Your task to perform on an android device: set default search engine in the chrome app Image 0: 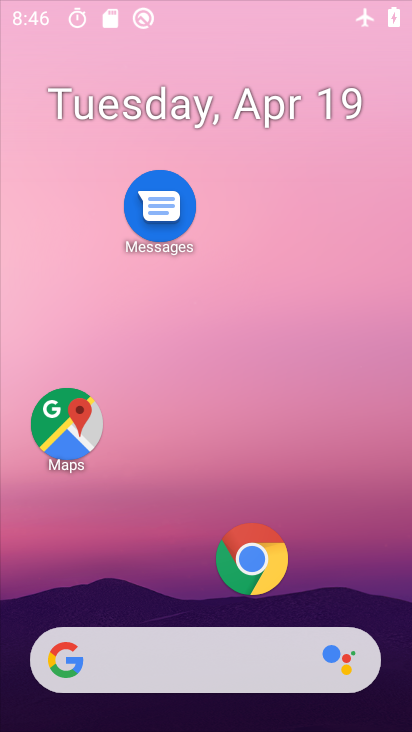
Step 0: click (392, 653)
Your task to perform on an android device: set default search engine in the chrome app Image 1: 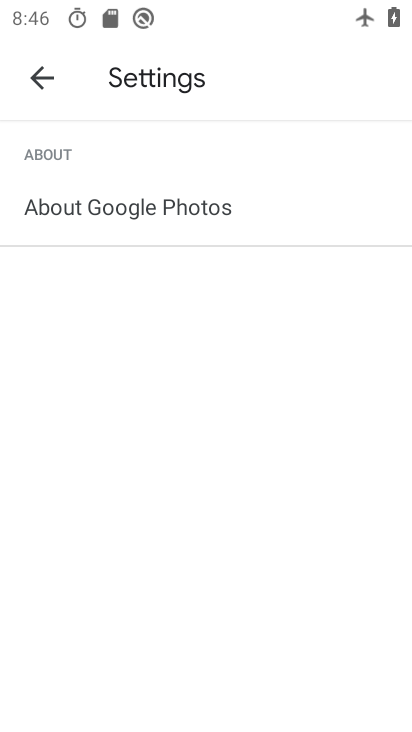
Step 1: press home button
Your task to perform on an android device: set default search engine in the chrome app Image 2: 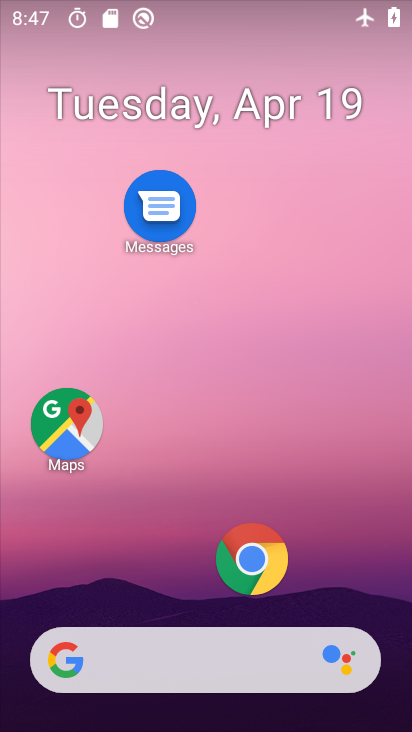
Step 2: click (247, 556)
Your task to perform on an android device: set default search engine in the chrome app Image 3: 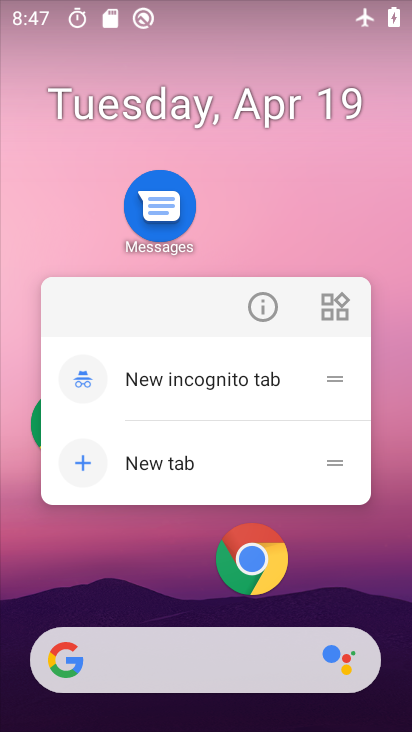
Step 3: click (254, 553)
Your task to perform on an android device: set default search engine in the chrome app Image 4: 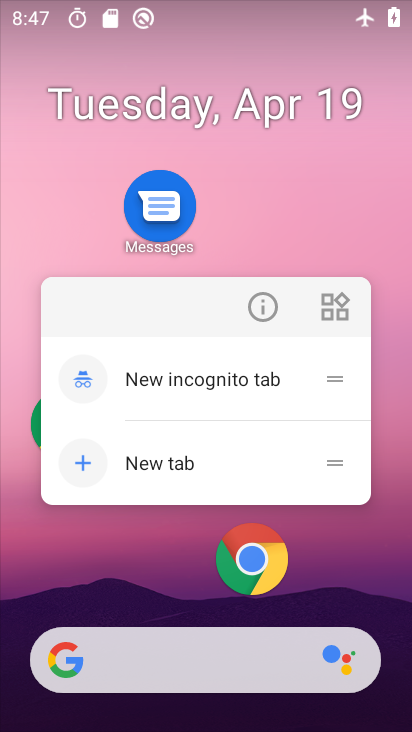
Step 4: click (254, 553)
Your task to perform on an android device: set default search engine in the chrome app Image 5: 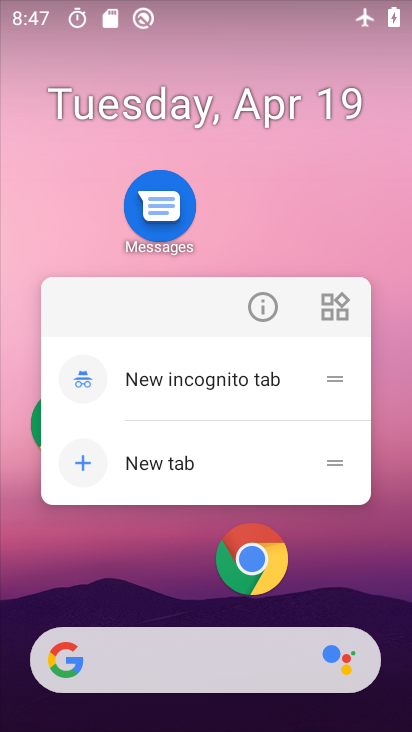
Step 5: click (254, 553)
Your task to perform on an android device: set default search engine in the chrome app Image 6: 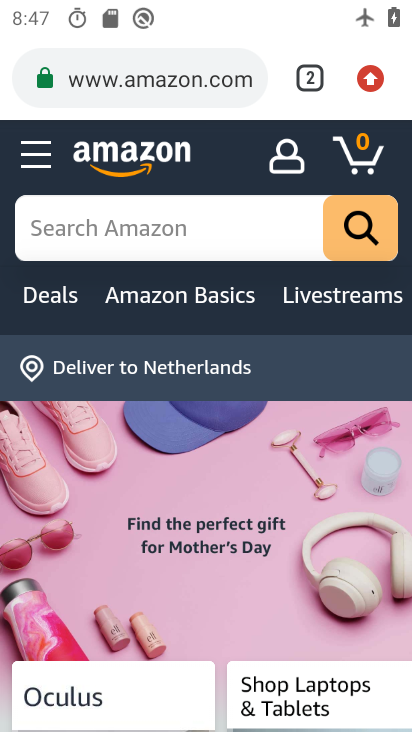
Step 6: drag from (365, 72) to (165, 621)
Your task to perform on an android device: set default search engine in the chrome app Image 7: 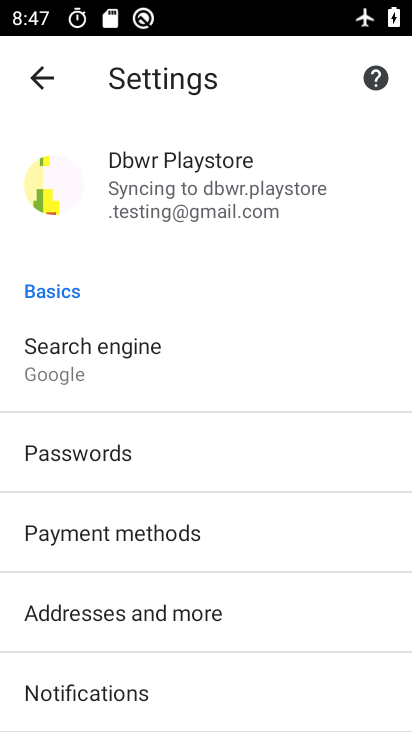
Step 7: click (143, 365)
Your task to perform on an android device: set default search engine in the chrome app Image 8: 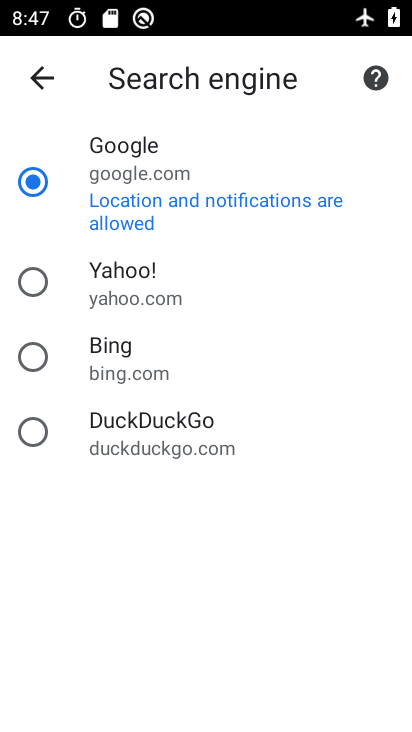
Step 8: click (125, 316)
Your task to perform on an android device: set default search engine in the chrome app Image 9: 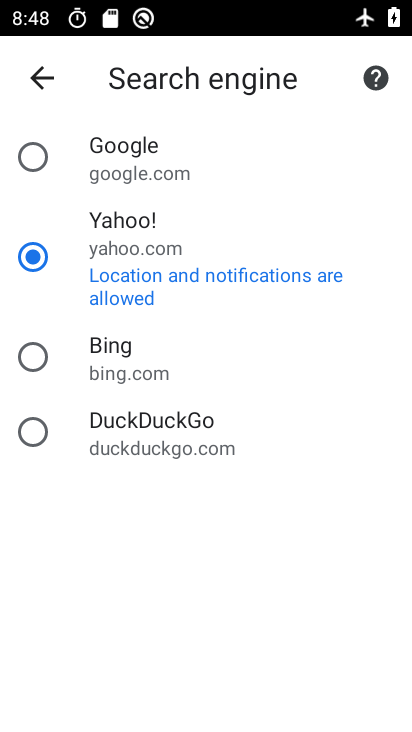
Step 9: task complete